Your task to perform on an android device: turn on location history Image 0: 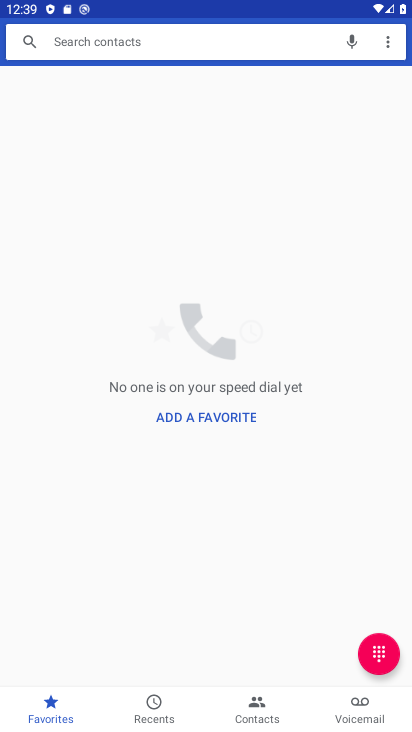
Step 0: press home button
Your task to perform on an android device: turn on location history Image 1: 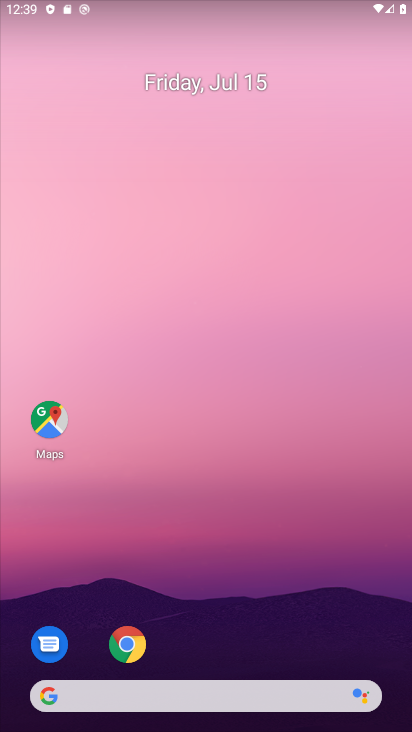
Step 1: drag from (281, 527) to (175, 0)
Your task to perform on an android device: turn on location history Image 2: 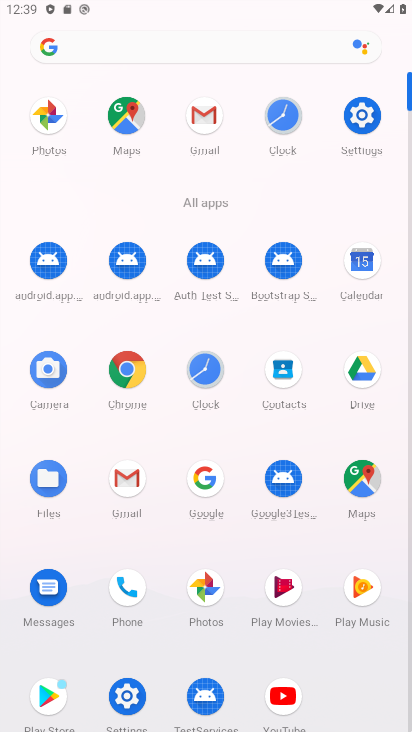
Step 2: click (358, 117)
Your task to perform on an android device: turn on location history Image 3: 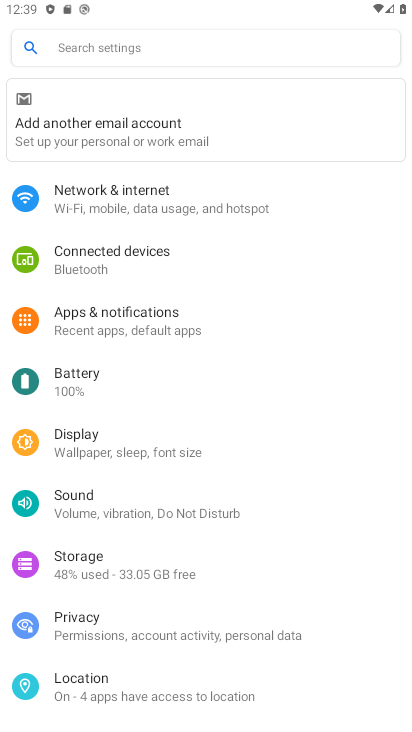
Step 3: click (128, 680)
Your task to perform on an android device: turn on location history Image 4: 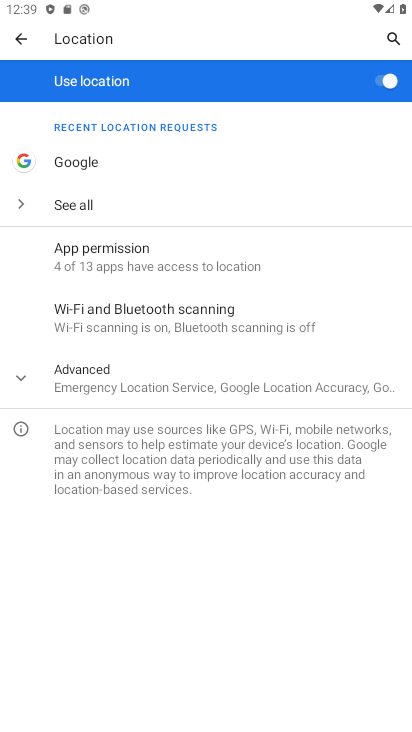
Step 4: task complete